Your task to perform on an android device: toggle notifications settings in the gmail app Image 0: 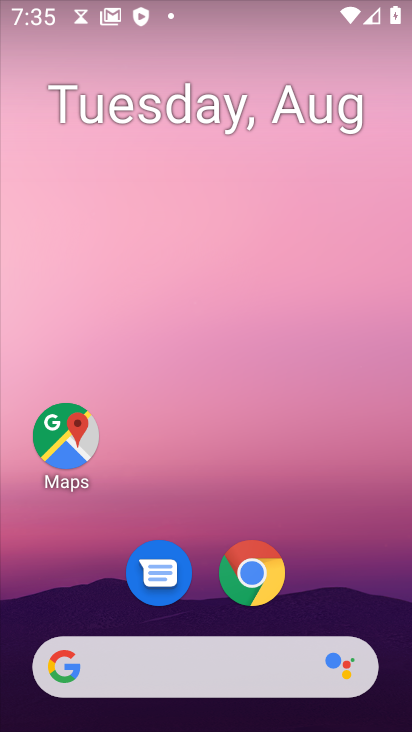
Step 0: press home button
Your task to perform on an android device: toggle notifications settings in the gmail app Image 1: 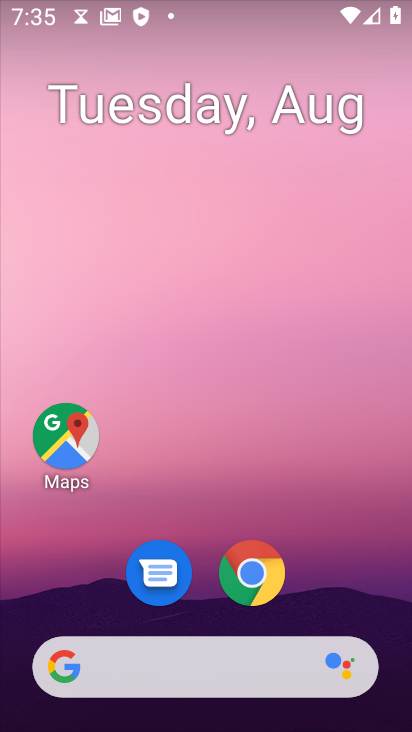
Step 1: press home button
Your task to perform on an android device: toggle notifications settings in the gmail app Image 2: 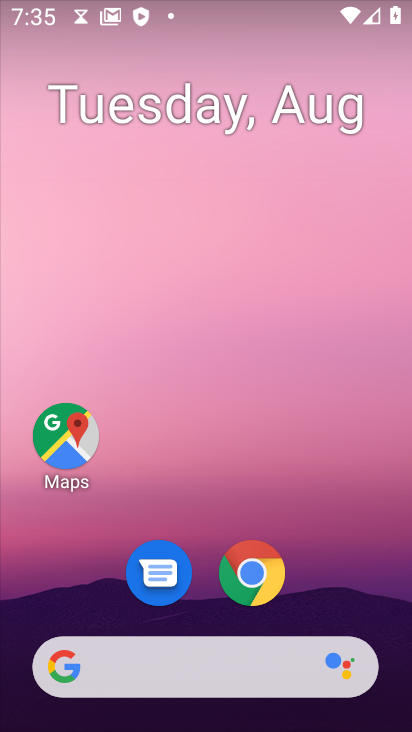
Step 2: drag from (208, 610) to (231, 31)
Your task to perform on an android device: toggle notifications settings in the gmail app Image 3: 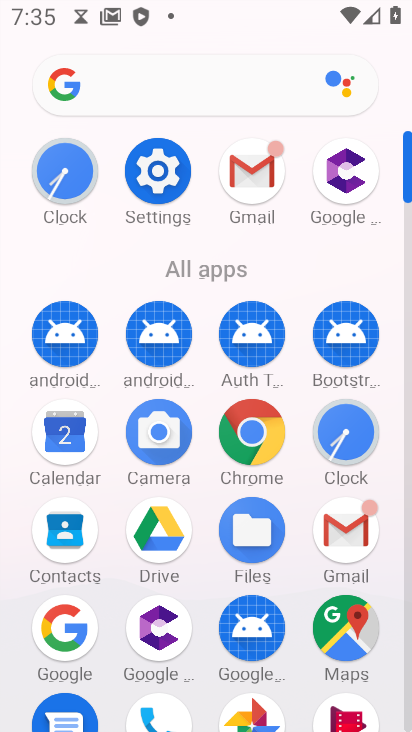
Step 3: click (249, 161)
Your task to perform on an android device: toggle notifications settings in the gmail app Image 4: 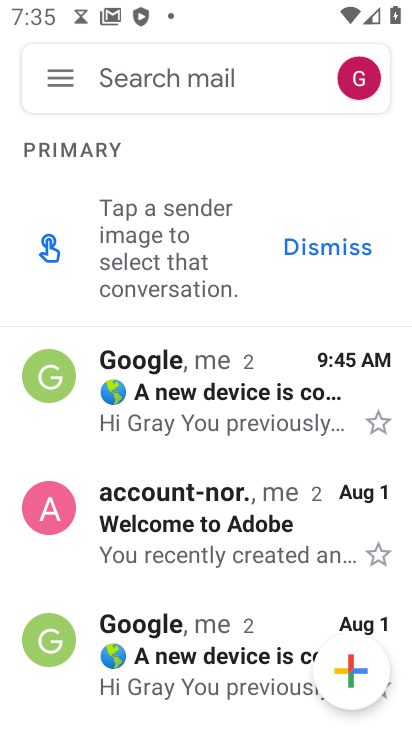
Step 4: click (58, 73)
Your task to perform on an android device: toggle notifications settings in the gmail app Image 5: 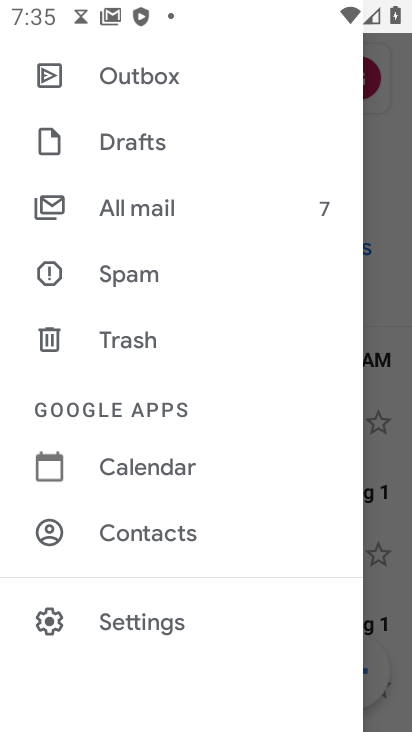
Step 5: click (161, 617)
Your task to perform on an android device: toggle notifications settings in the gmail app Image 6: 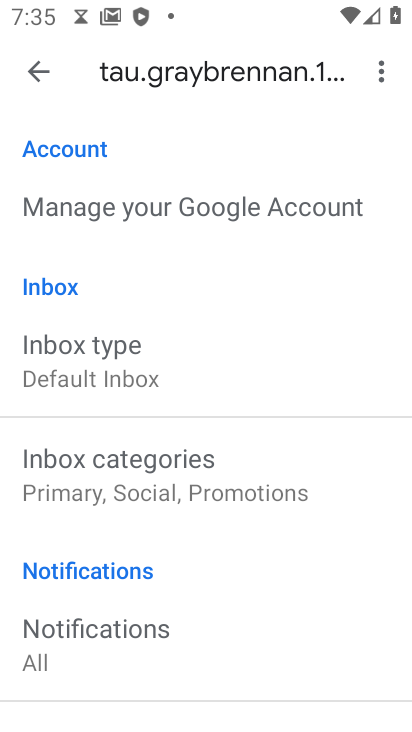
Step 6: drag from (204, 659) to (240, 151)
Your task to perform on an android device: toggle notifications settings in the gmail app Image 7: 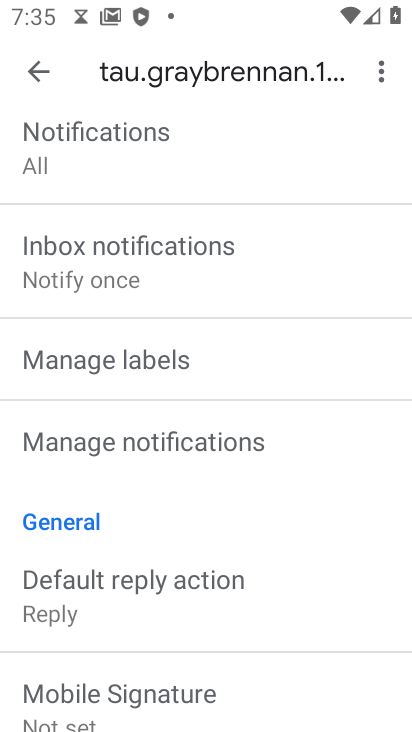
Step 7: click (41, 63)
Your task to perform on an android device: toggle notifications settings in the gmail app Image 8: 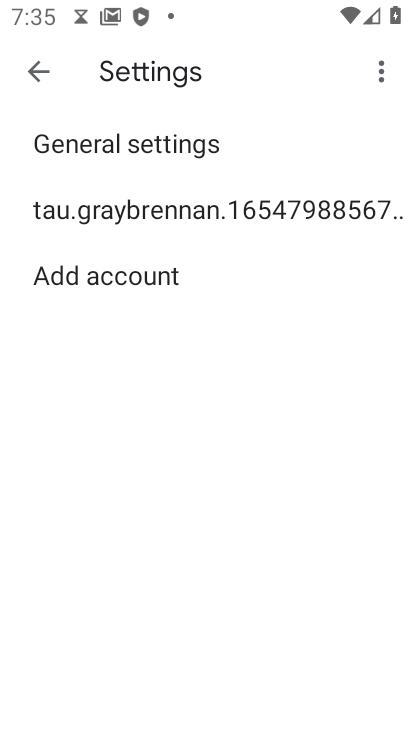
Step 8: click (154, 139)
Your task to perform on an android device: toggle notifications settings in the gmail app Image 9: 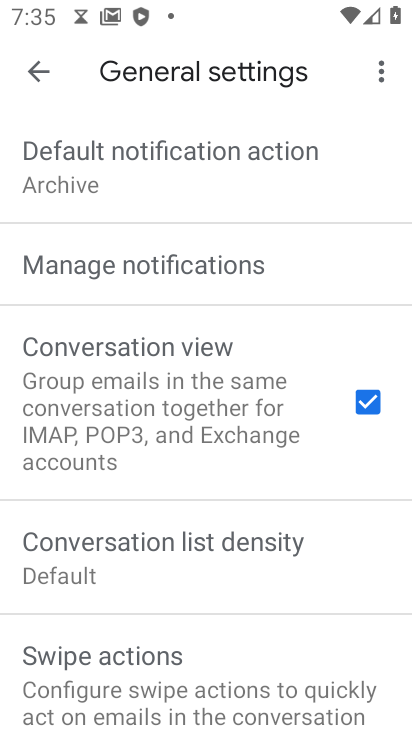
Step 9: click (280, 271)
Your task to perform on an android device: toggle notifications settings in the gmail app Image 10: 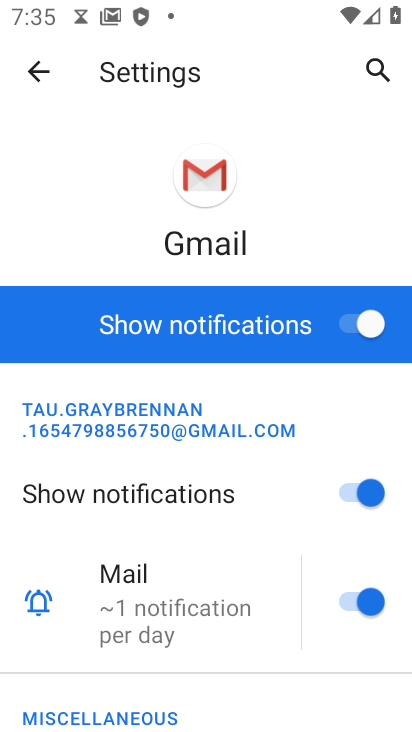
Step 10: click (351, 322)
Your task to perform on an android device: toggle notifications settings in the gmail app Image 11: 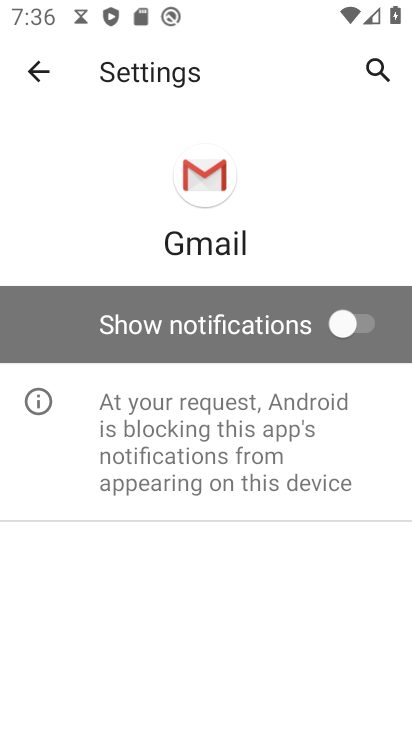
Step 11: task complete